Your task to perform on an android device: When is my next meeting? Image 0: 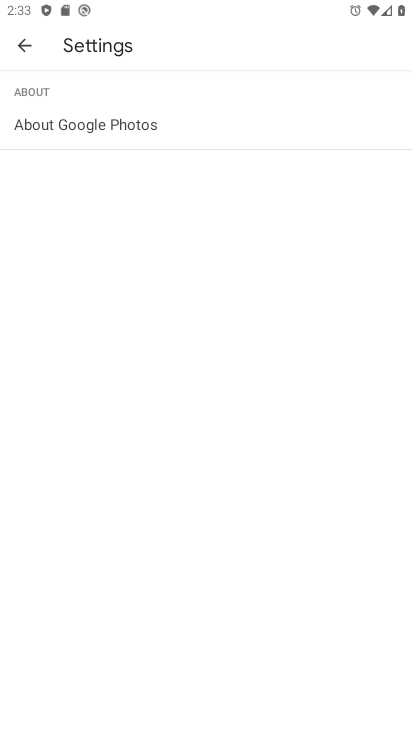
Step 0: press home button
Your task to perform on an android device: When is my next meeting? Image 1: 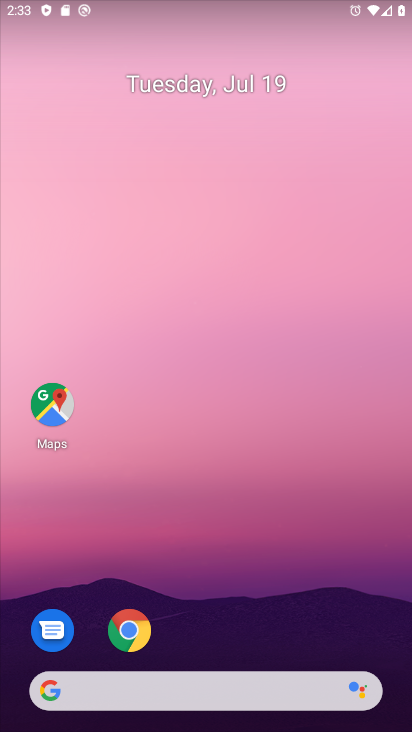
Step 1: drag from (229, 576) to (255, 0)
Your task to perform on an android device: When is my next meeting? Image 2: 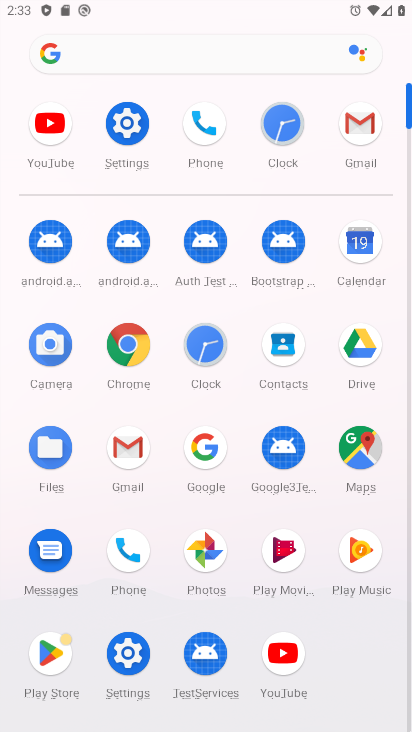
Step 2: click (355, 247)
Your task to perform on an android device: When is my next meeting? Image 3: 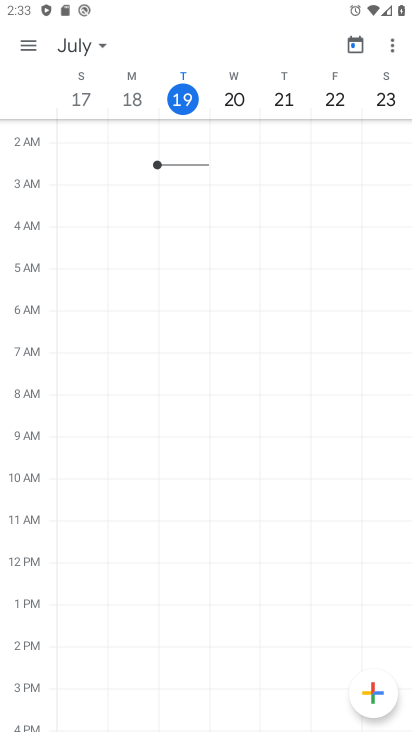
Step 3: task complete